Your task to perform on an android device: What is the news today? Image 0: 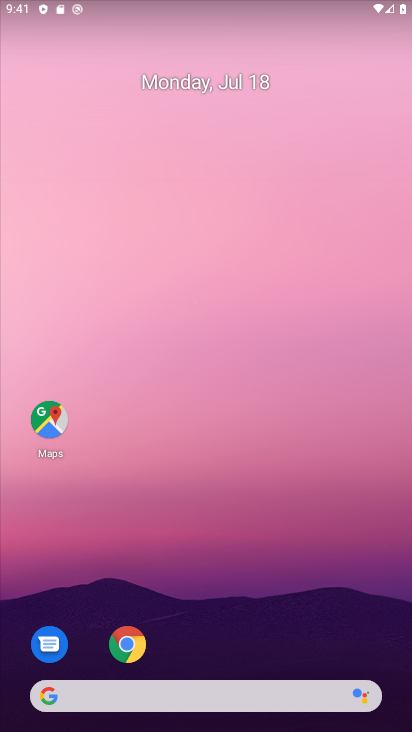
Step 0: drag from (11, 256) to (410, 235)
Your task to perform on an android device: What is the news today? Image 1: 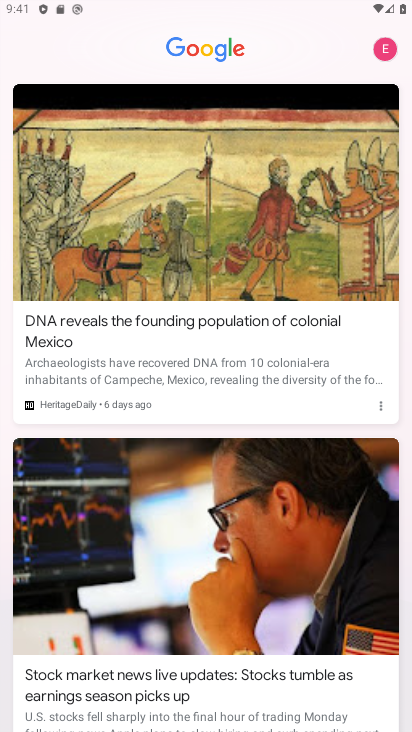
Step 1: task complete